Your task to perform on an android device: choose inbox layout in the gmail app Image 0: 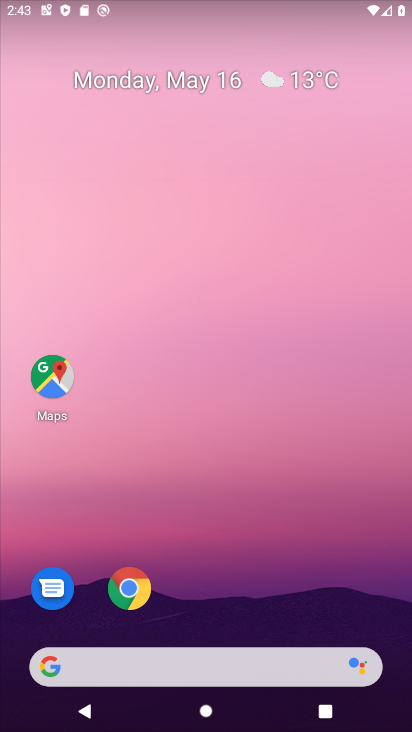
Step 0: drag from (231, 654) to (257, 1)
Your task to perform on an android device: choose inbox layout in the gmail app Image 1: 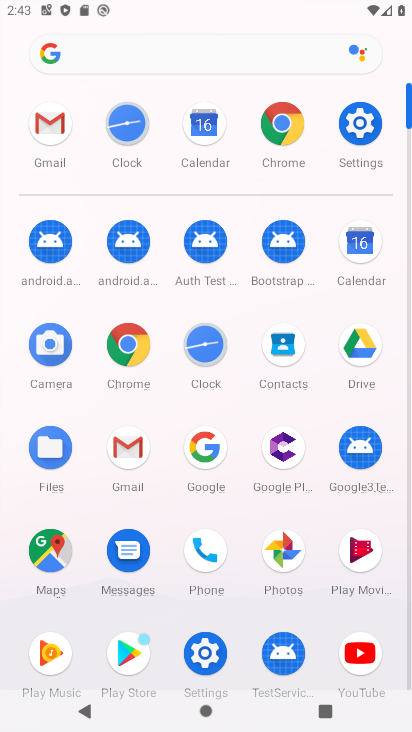
Step 1: click (120, 440)
Your task to perform on an android device: choose inbox layout in the gmail app Image 2: 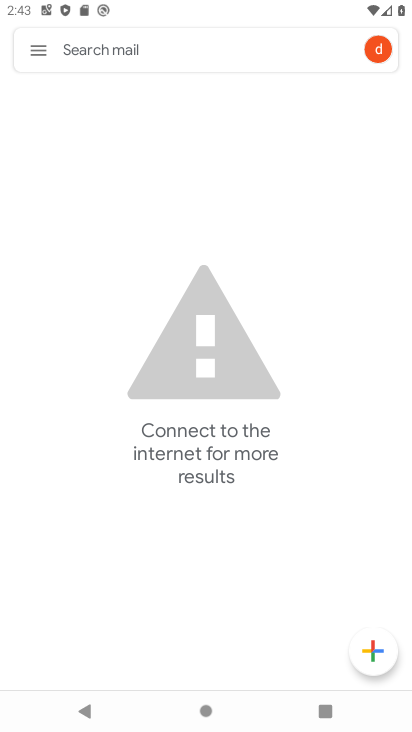
Step 2: click (43, 42)
Your task to perform on an android device: choose inbox layout in the gmail app Image 3: 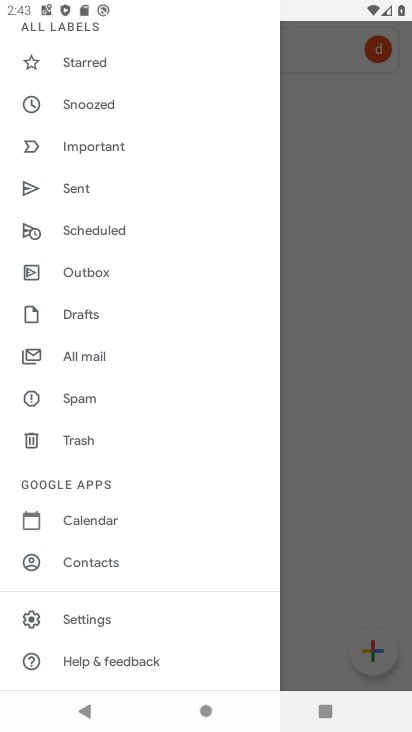
Step 3: click (105, 615)
Your task to perform on an android device: choose inbox layout in the gmail app Image 4: 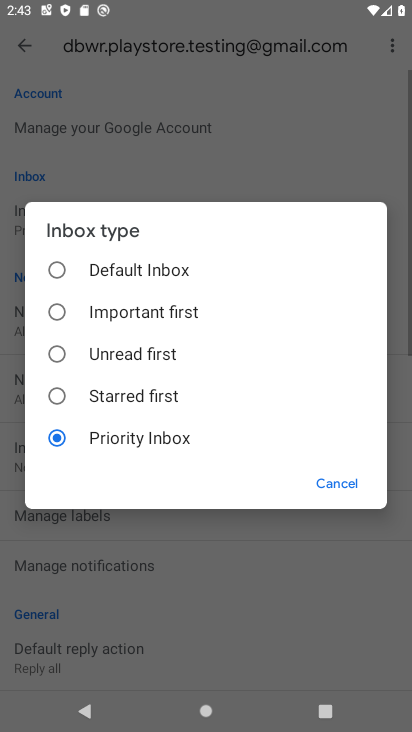
Step 4: click (317, 485)
Your task to perform on an android device: choose inbox layout in the gmail app Image 5: 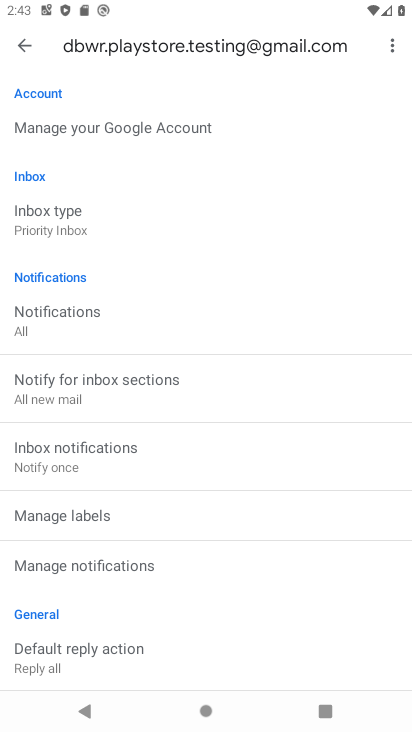
Step 5: task complete